Your task to perform on an android device: Go to accessibility settings Image 0: 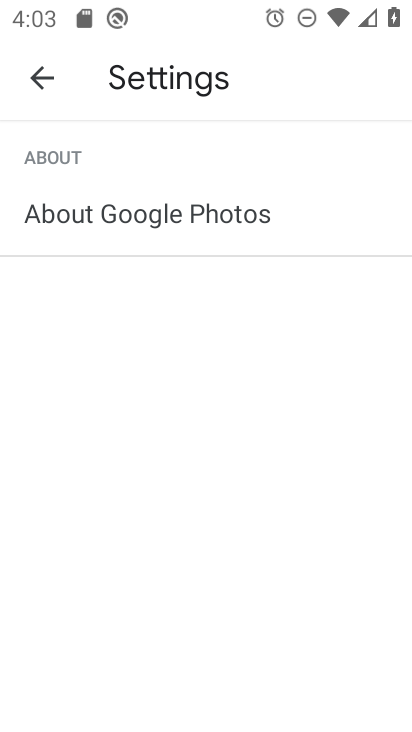
Step 0: press home button
Your task to perform on an android device: Go to accessibility settings Image 1: 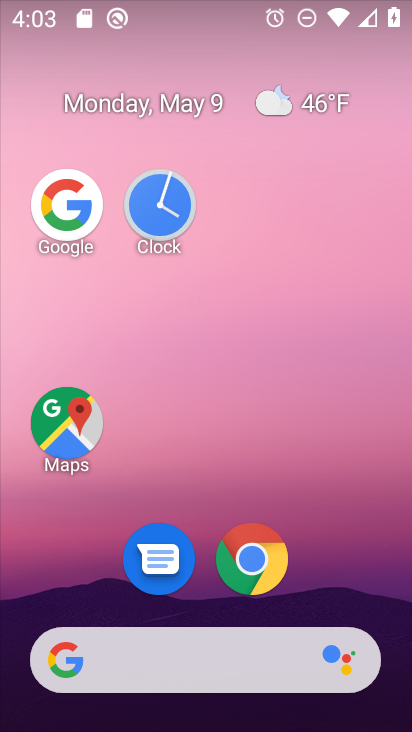
Step 1: drag from (346, 596) to (390, 105)
Your task to perform on an android device: Go to accessibility settings Image 2: 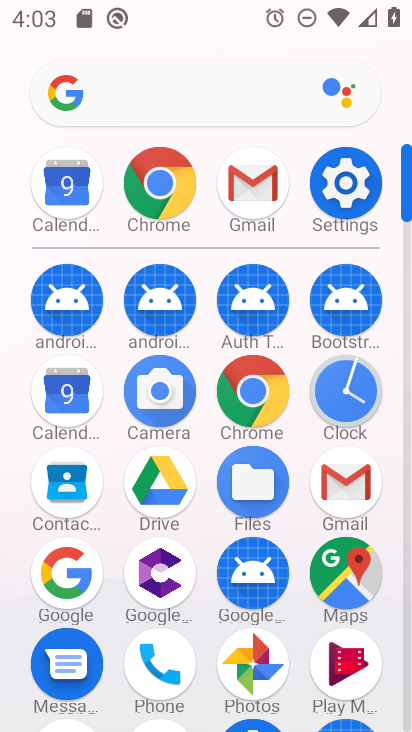
Step 2: click (350, 179)
Your task to perform on an android device: Go to accessibility settings Image 3: 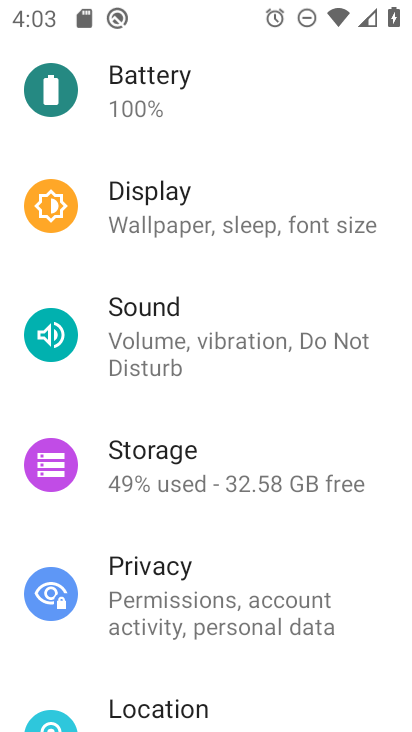
Step 3: drag from (220, 650) to (318, 220)
Your task to perform on an android device: Go to accessibility settings Image 4: 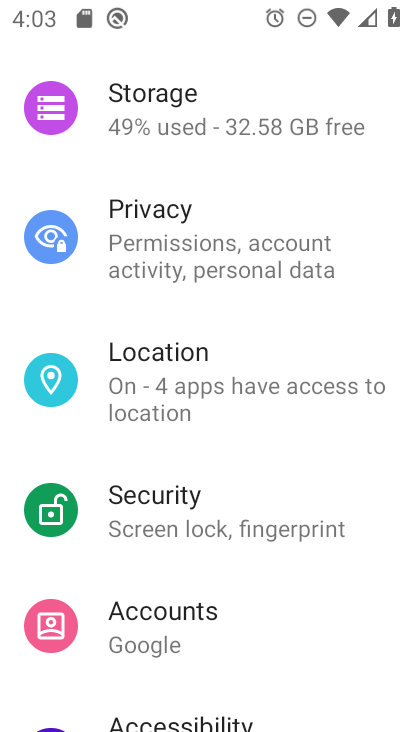
Step 4: drag from (272, 605) to (345, 176)
Your task to perform on an android device: Go to accessibility settings Image 5: 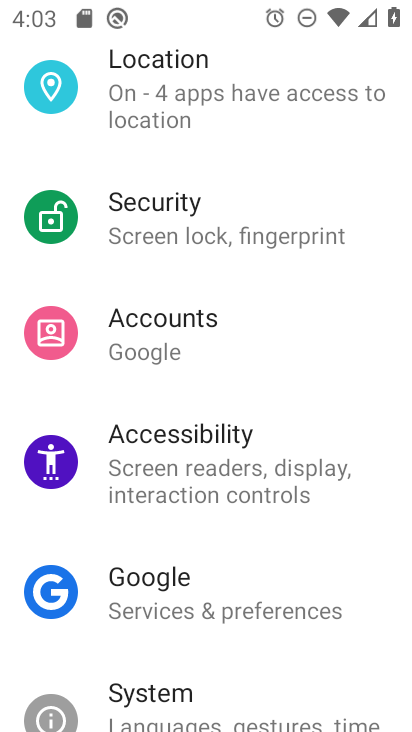
Step 5: click (285, 444)
Your task to perform on an android device: Go to accessibility settings Image 6: 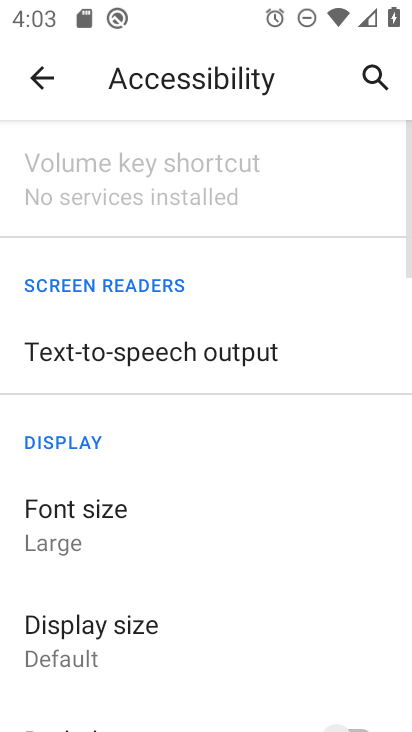
Step 6: task complete